Your task to perform on an android device: Open CNN.com Image 0: 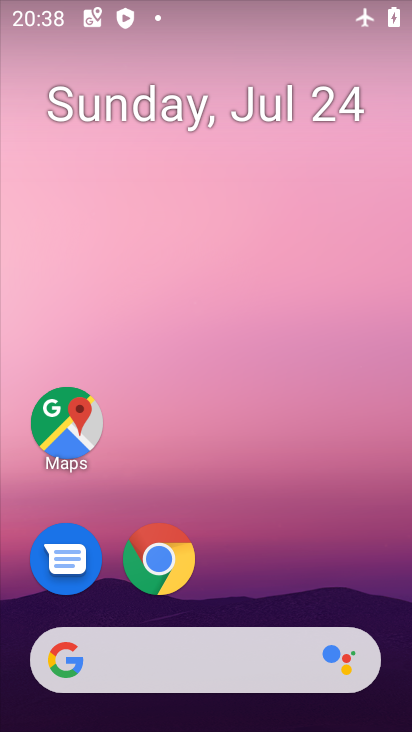
Step 0: press home button
Your task to perform on an android device: Open CNN.com Image 1: 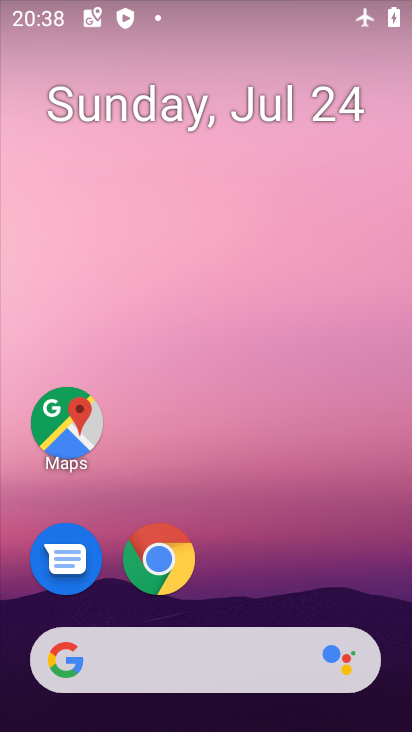
Step 1: drag from (366, 591) to (370, 47)
Your task to perform on an android device: Open CNN.com Image 2: 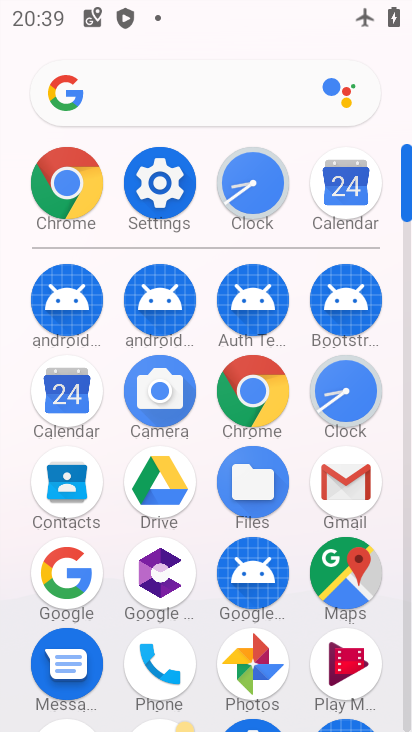
Step 2: click (252, 394)
Your task to perform on an android device: Open CNN.com Image 3: 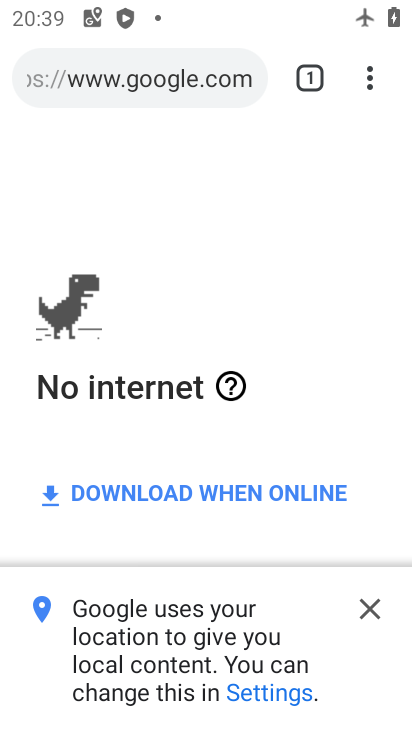
Step 3: click (178, 81)
Your task to perform on an android device: Open CNN.com Image 4: 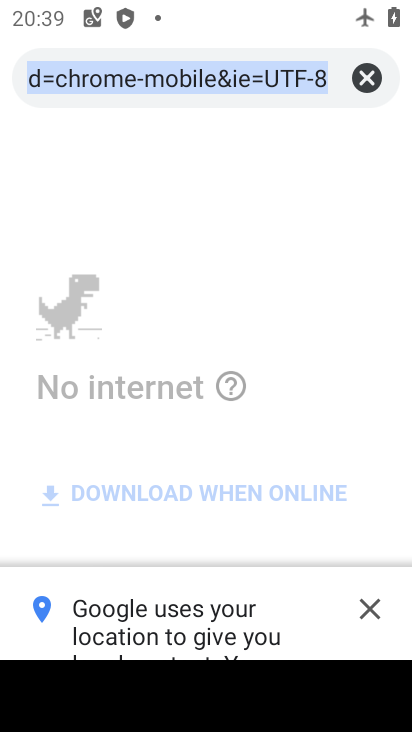
Step 4: type "cnn.com"
Your task to perform on an android device: Open CNN.com Image 5: 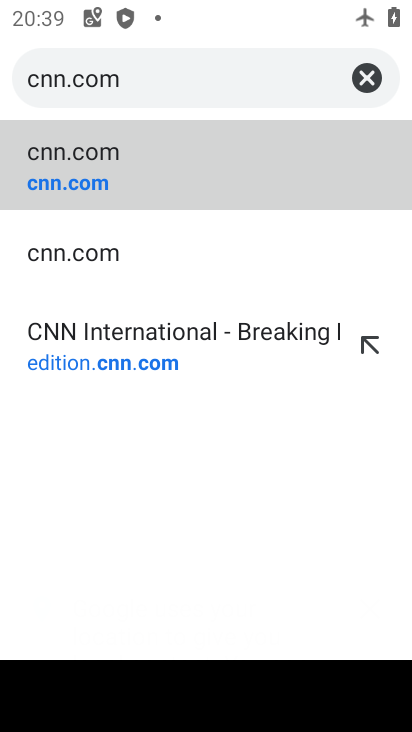
Step 5: click (365, 162)
Your task to perform on an android device: Open CNN.com Image 6: 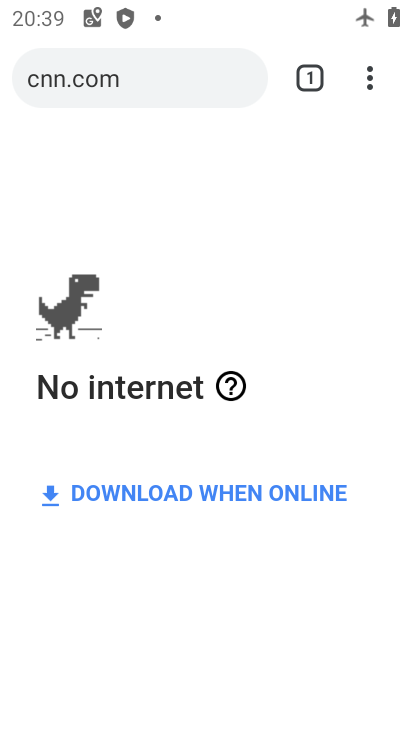
Step 6: task complete